Your task to perform on an android device: Go to Android settings Image 0: 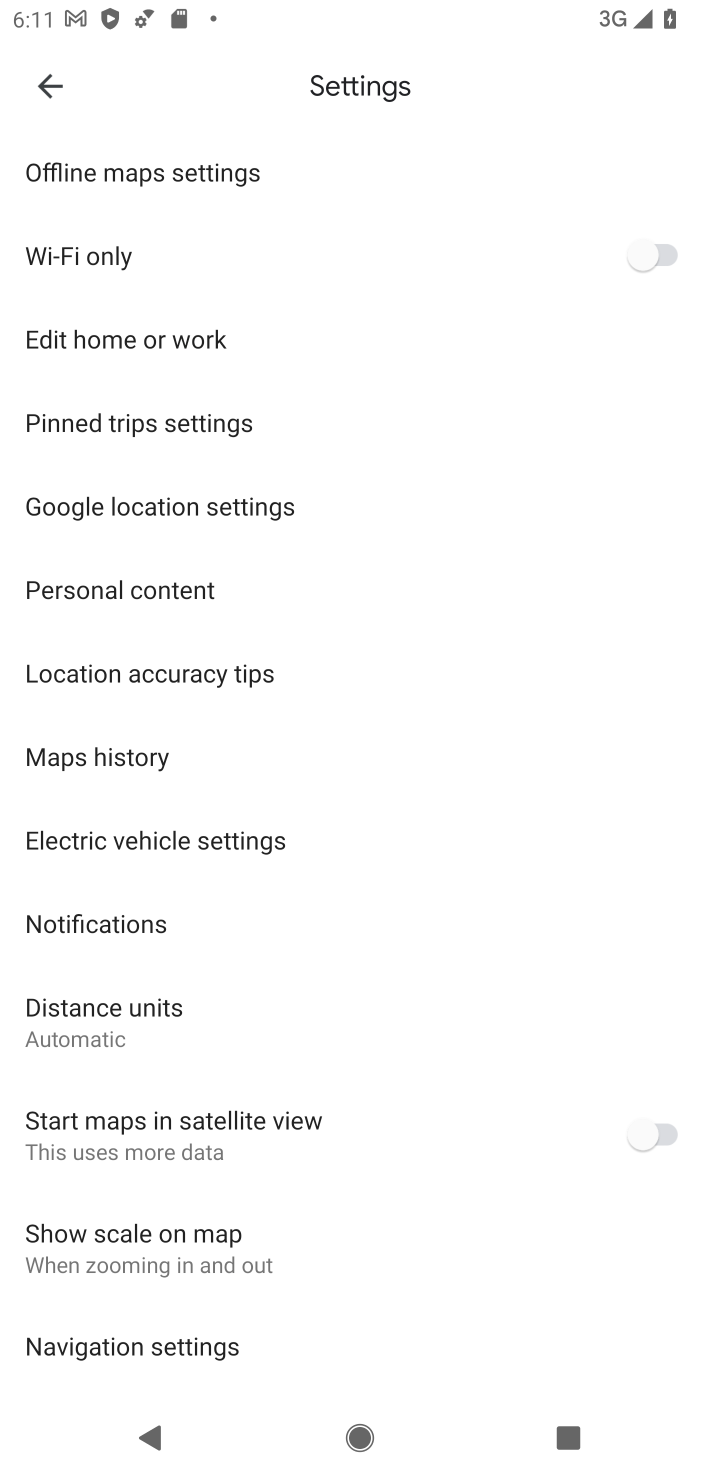
Step 0: press home button
Your task to perform on an android device: Go to Android settings Image 1: 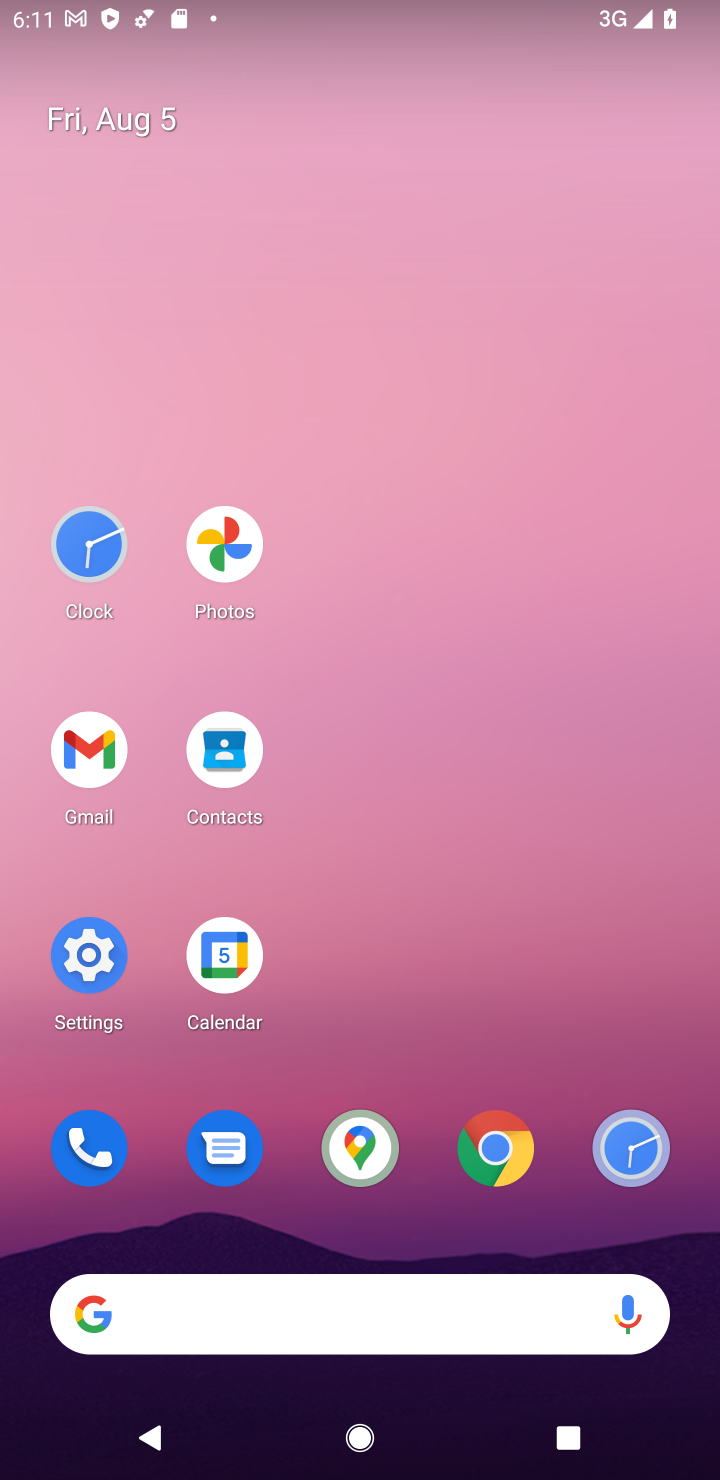
Step 1: click (85, 945)
Your task to perform on an android device: Go to Android settings Image 2: 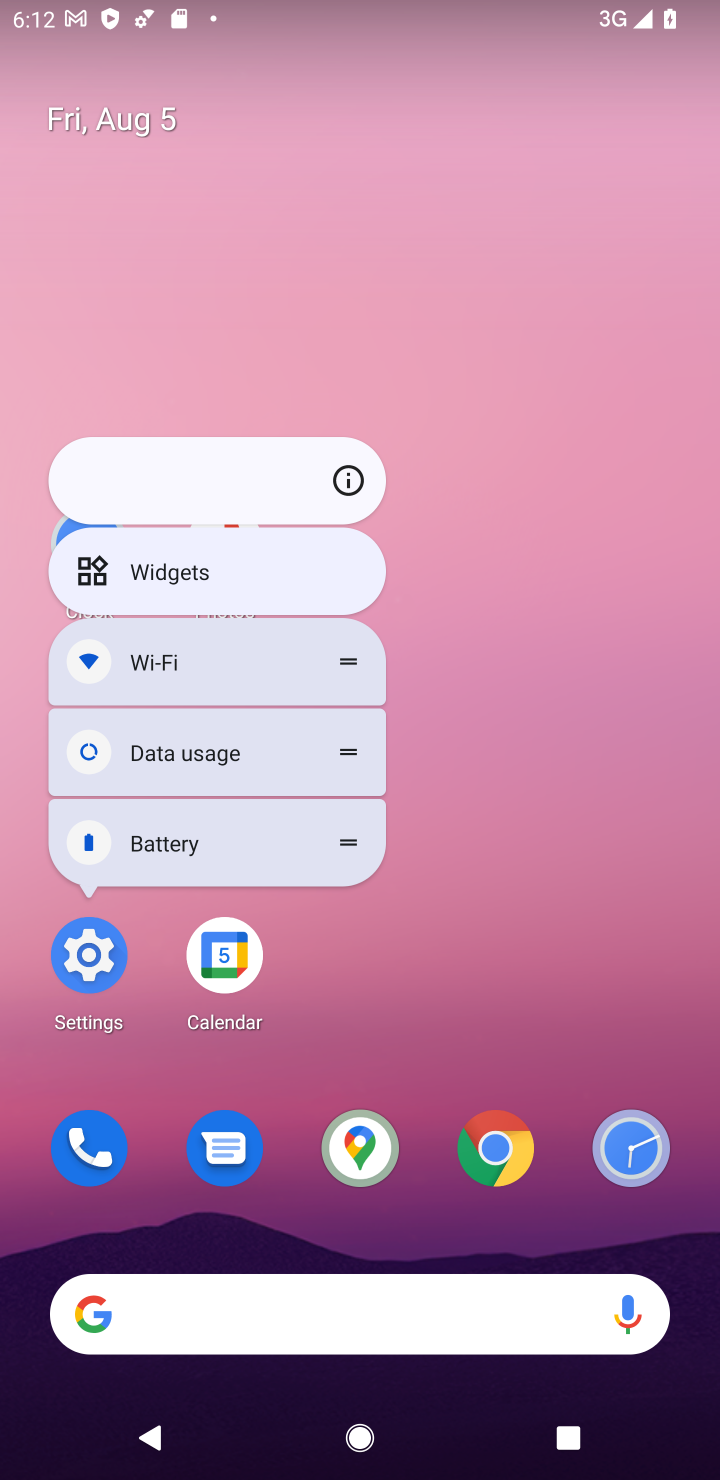
Step 2: click (86, 972)
Your task to perform on an android device: Go to Android settings Image 3: 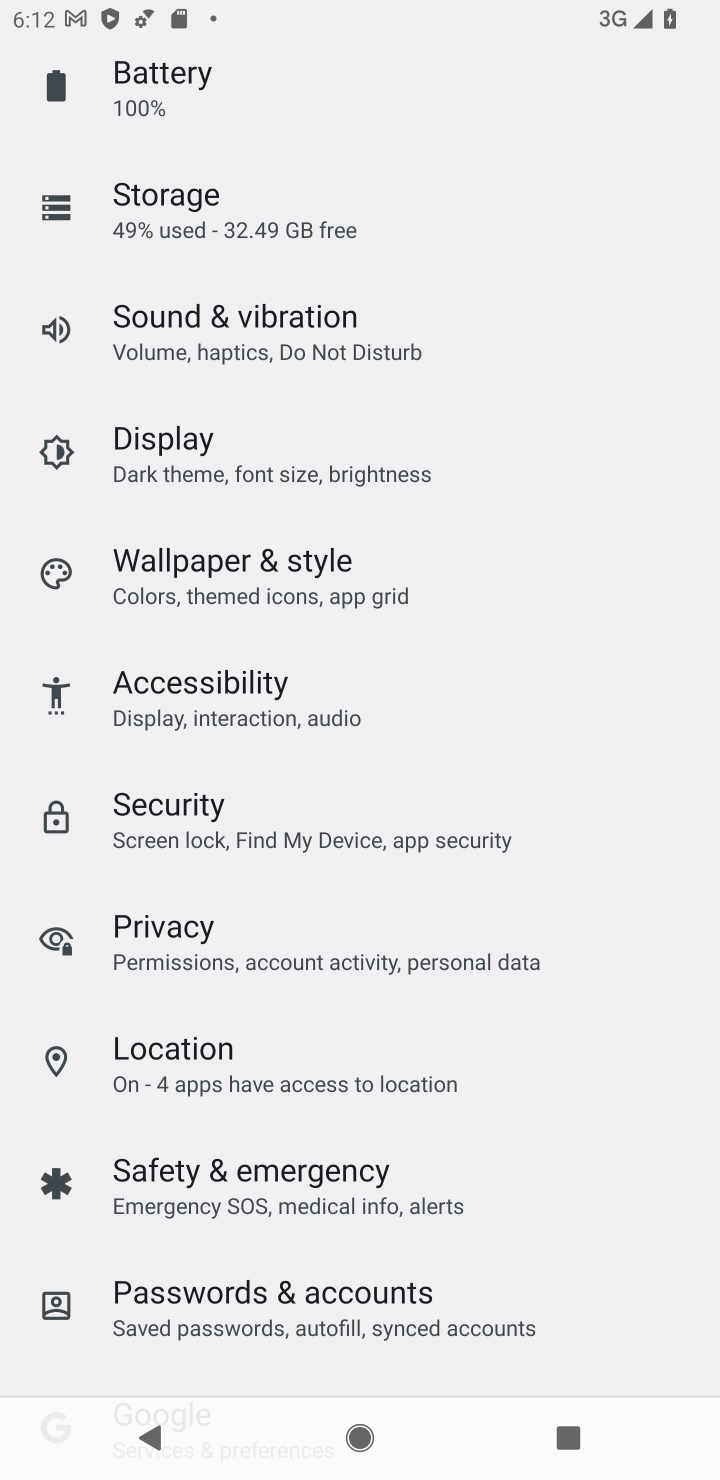
Step 3: drag from (448, 1200) to (440, 430)
Your task to perform on an android device: Go to Android settings Image 4: 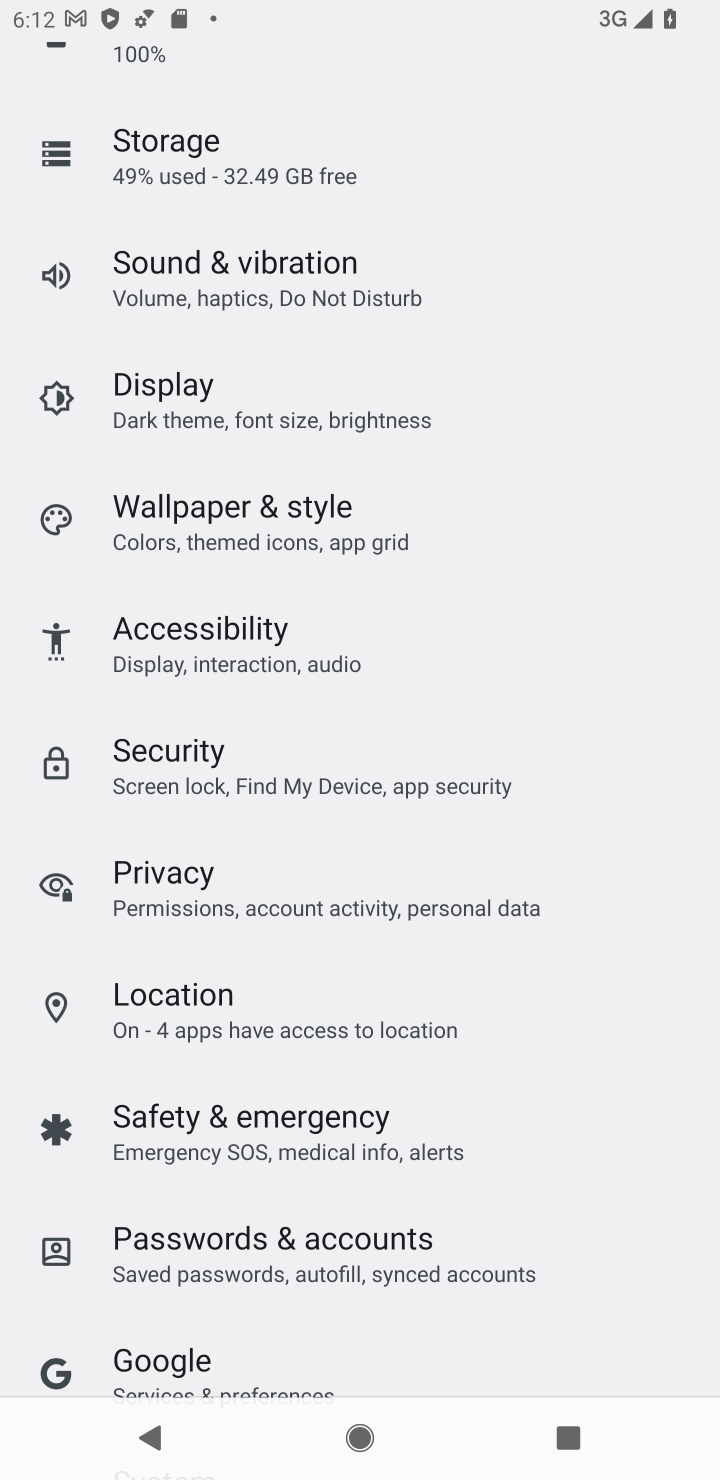
Step 4: drag from (444, 1317) to (442, 485)
Your task to perform on an android device: Go to Android settings Image 5: 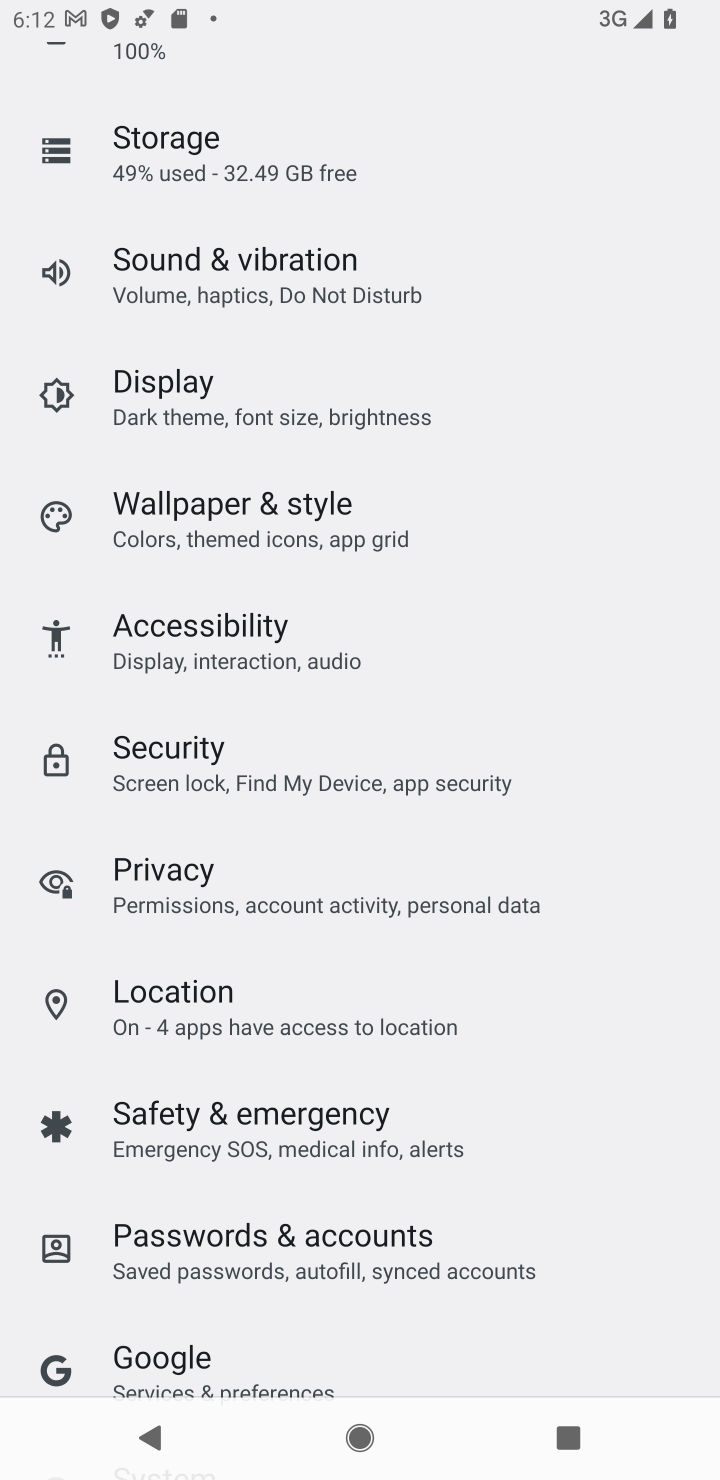
Step 5: drag from (519, 1231) to (593, 110)
Your task to perform on an android device: Go to Android settings Image 6: 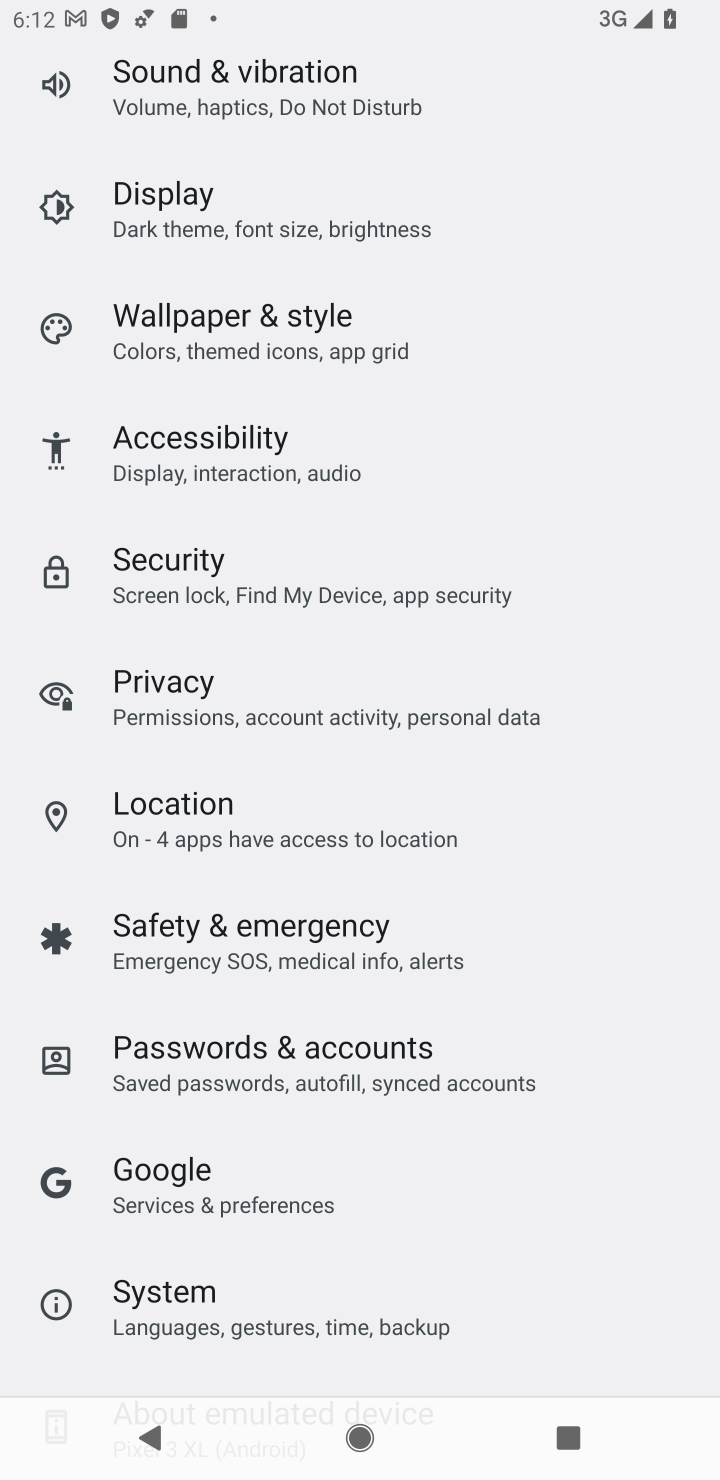
Step 6: drag from (507, 1214) to (473, 390)
Your task to perform on an android device: Go to Android settings Image 7: 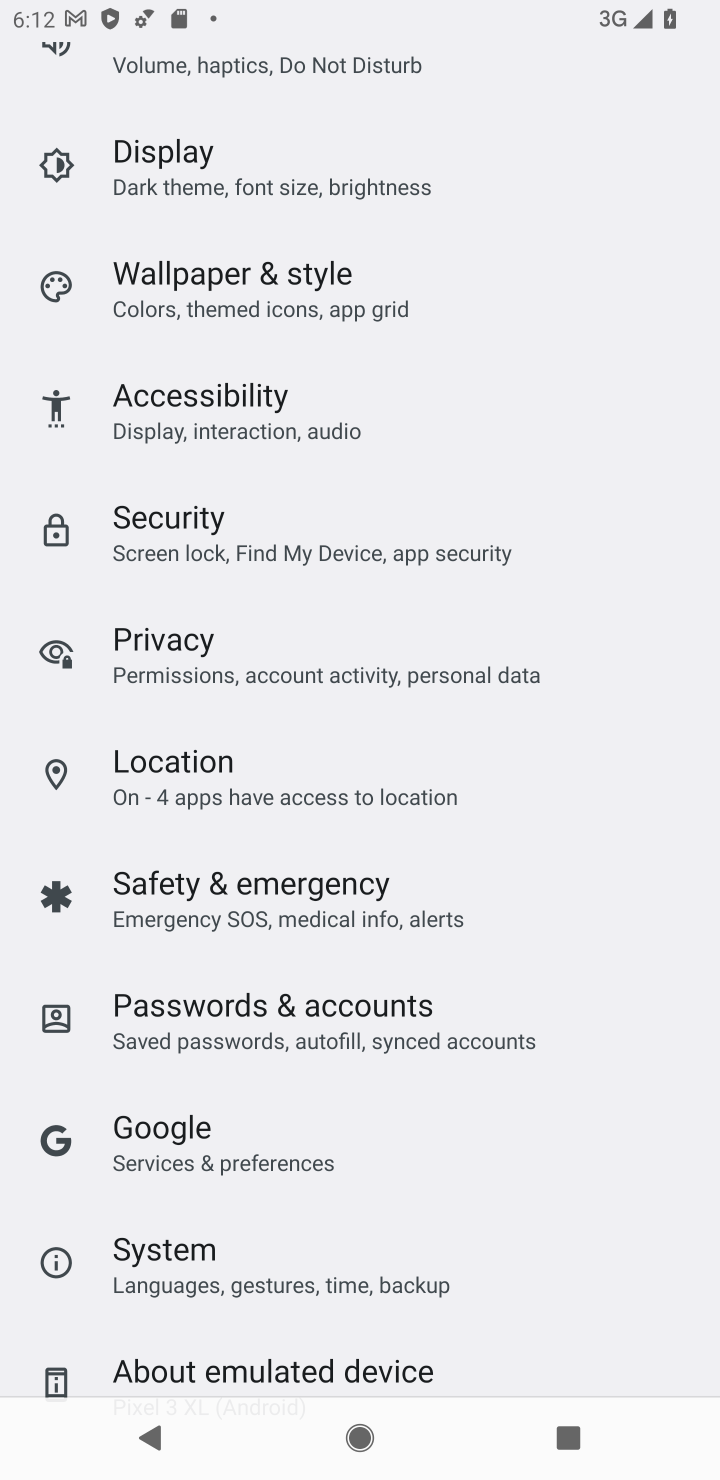
Step 7: drag from (555, 1265) to (532, 292)
Your task to perform on an android device: Go to Android settings Image 8: 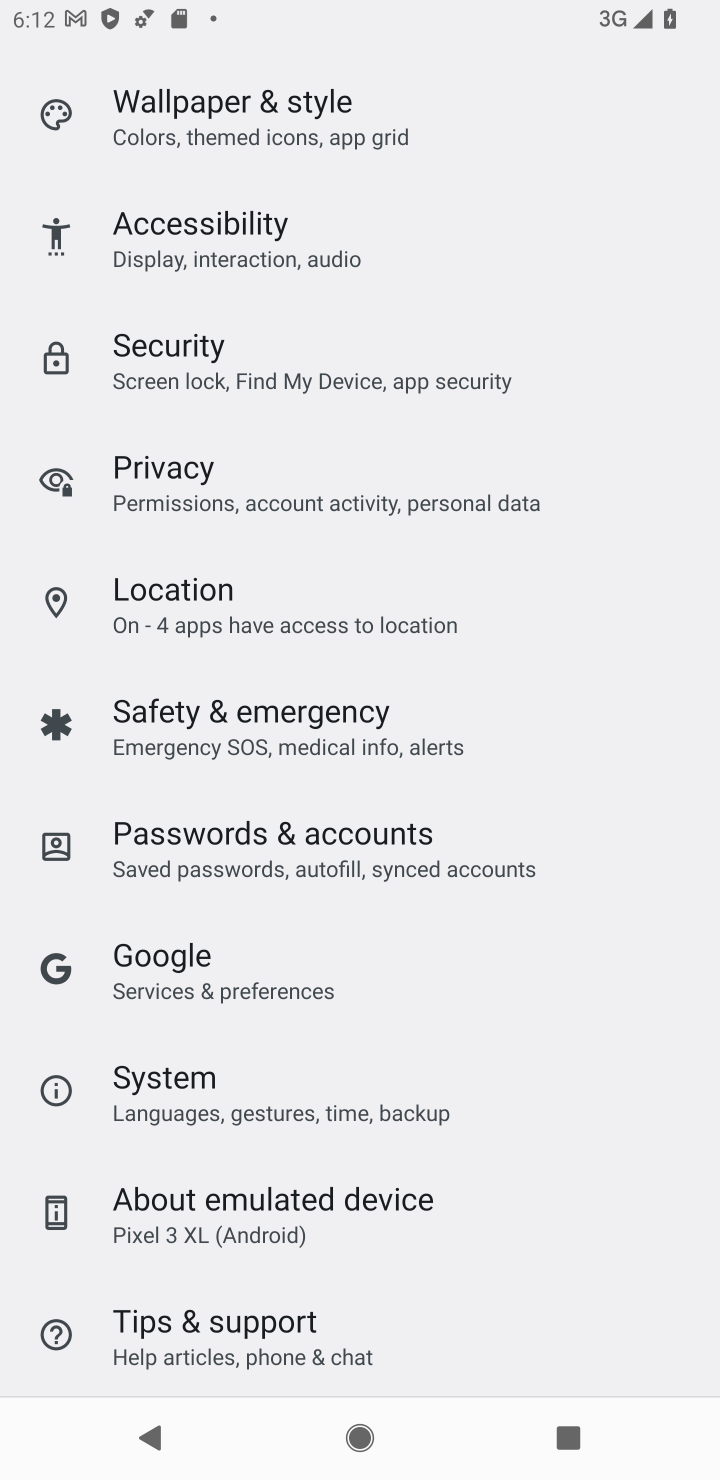
Step 8: drag from (500, 1270) to (369, 304)
Your task to perform on an android device: Go to Android settings Image 9: 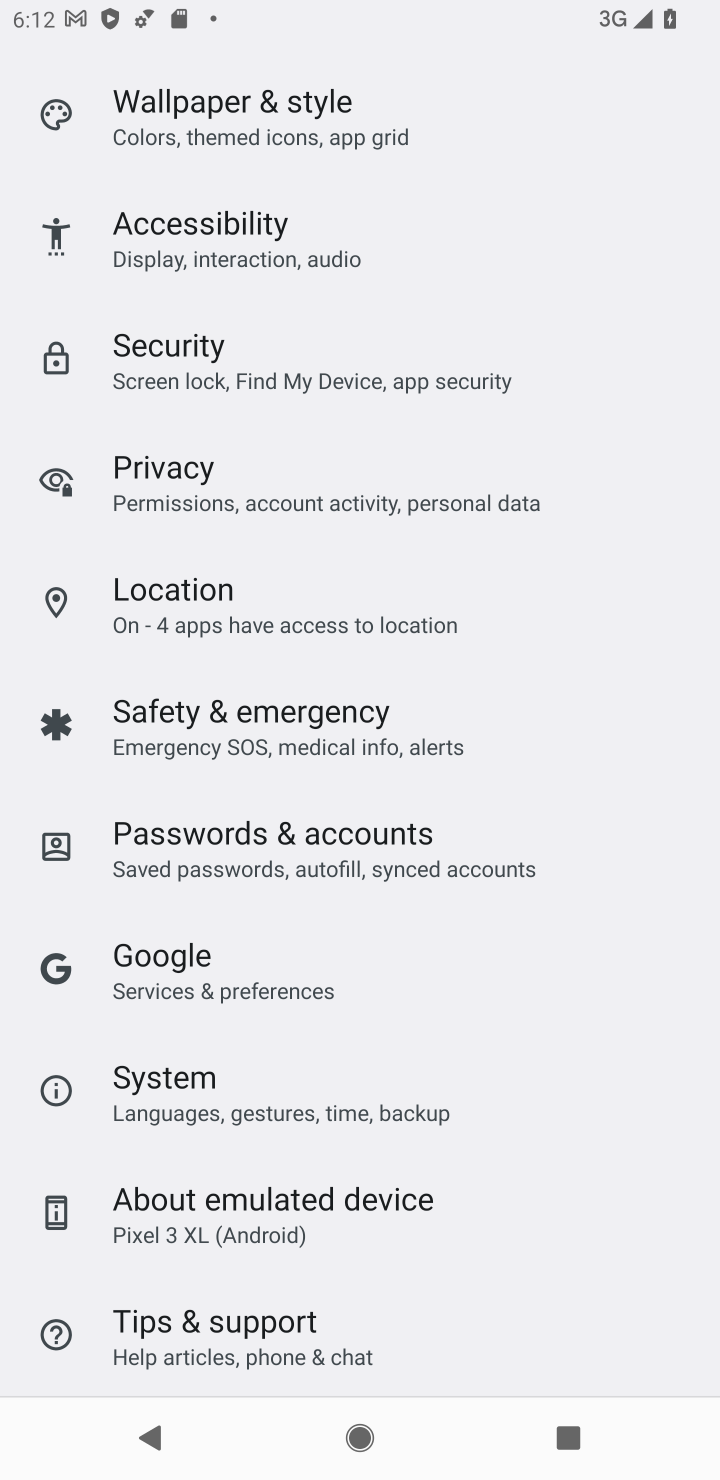
Step 9: click (348, 1213)
Your task to perform on an android device: Go to Android settings Image 10: 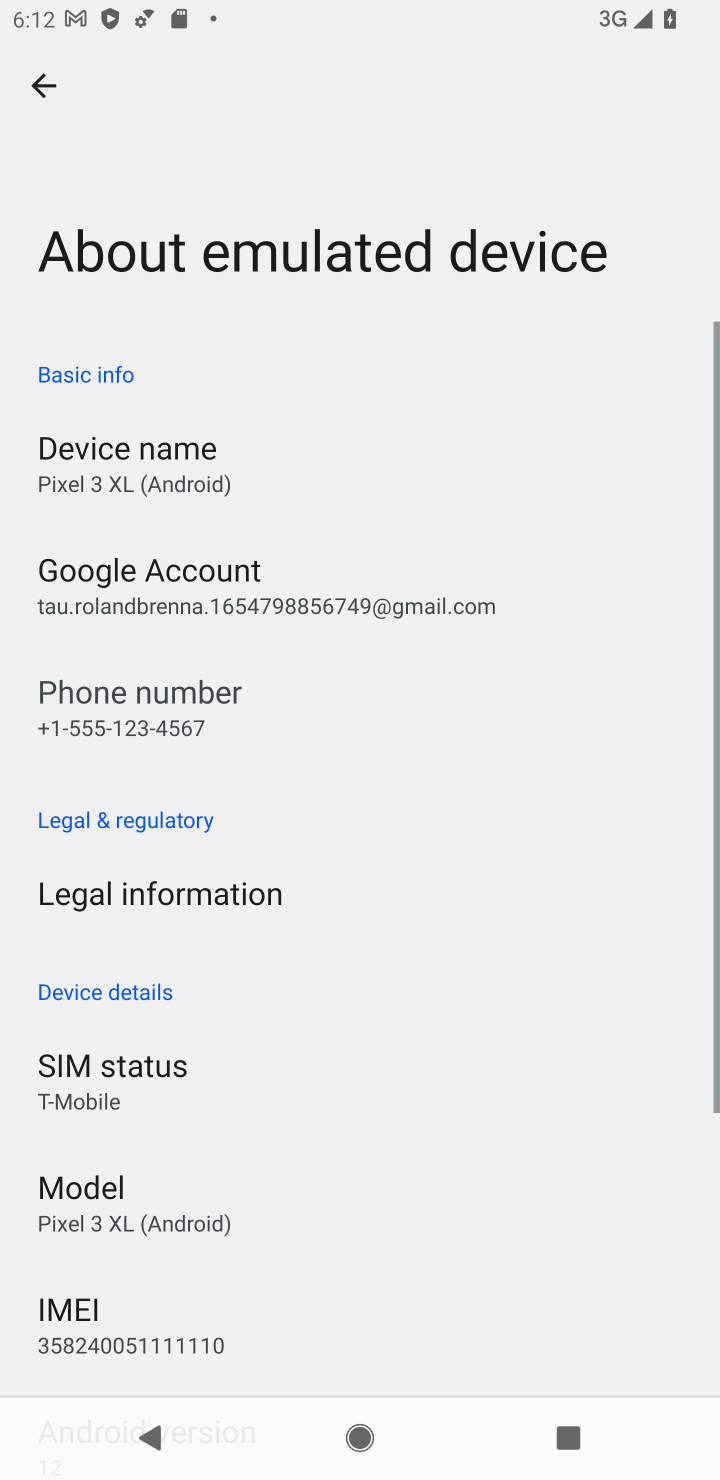
Step 10: task complete